Your task to perform on an android device: turn on notifications settings in the gmail app Image 0: 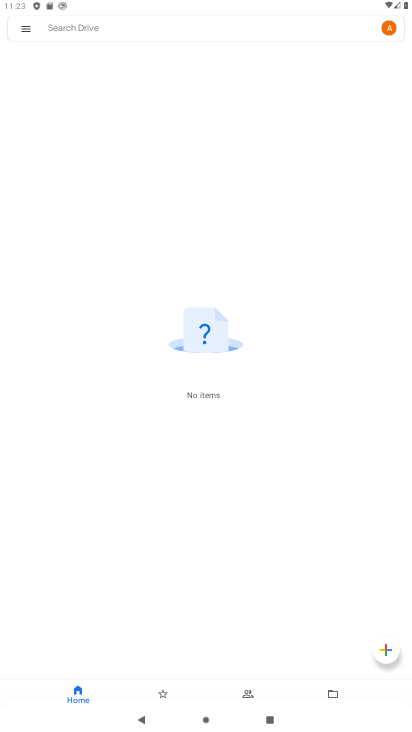
Step 0: press home button
Your task to perform on an android device: turn on notifications settings in the gmail app Image 1: 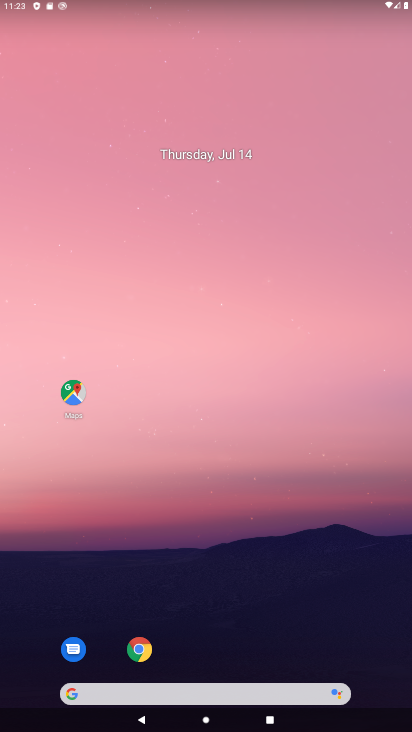
Step 1: drag from (199, 618) to (219, 13)
Your task to perform on an android device: turn on notifications settings in the gmail app Image 2: 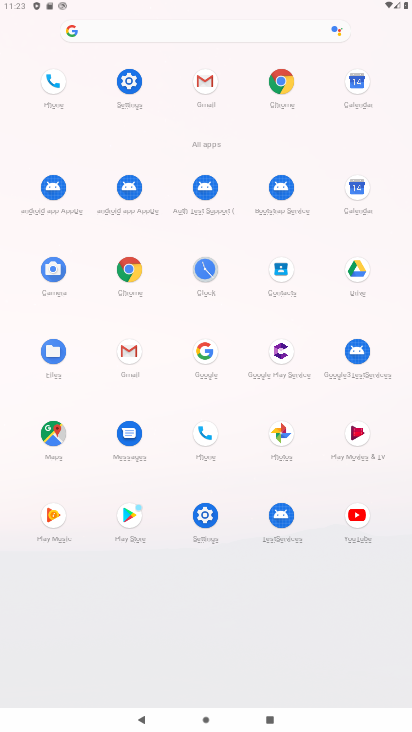
Step 2: click (207, 101)
Your task to perform on an android device: turn on notifications settings in the gmail app Image 3: 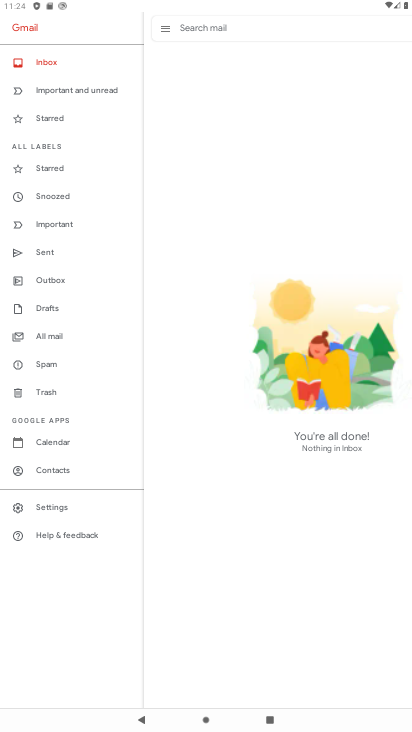
Step 3: click (54, 510)
Your task to perform on an android device: turn on notifications settings in the gmail app Image 4: 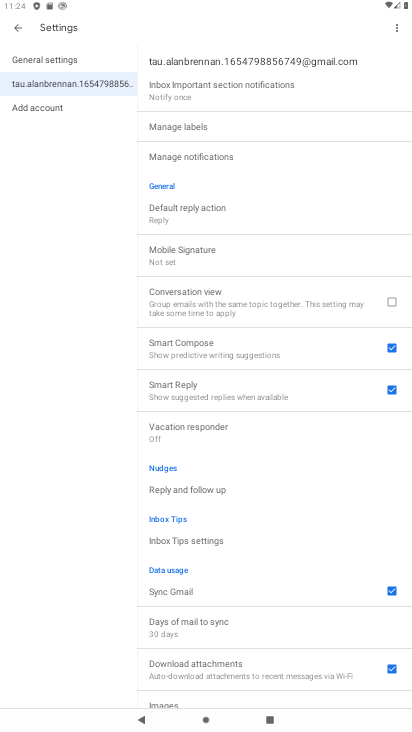
Step 4: click (190, 156)
Your task to perform on an android device: turn on notifications settings in the gmail app Image 5: 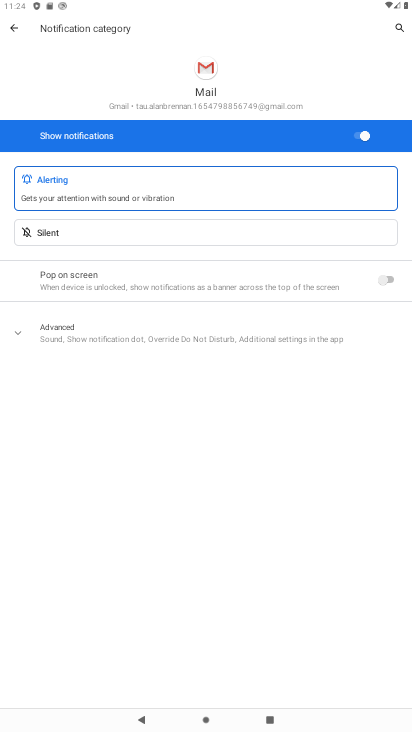
Step 5: task complete